Your task to perform on an android device: delete a single message in the gmail app Image 0: 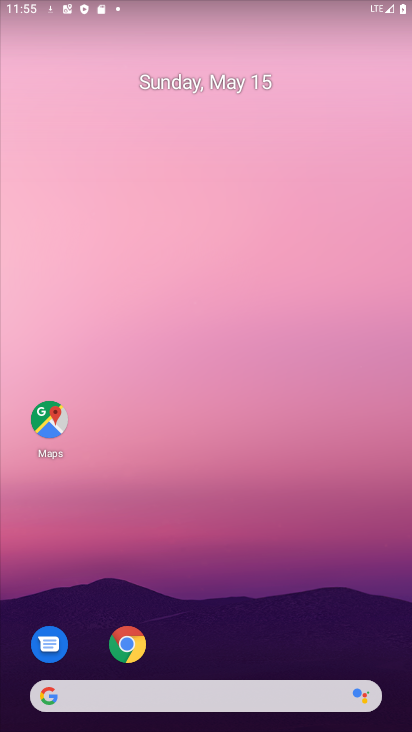
Step 0: drag from (196, 711) to (368, 250)
Your task to perform on an android device: delete a single message in the gmail app Image 1: 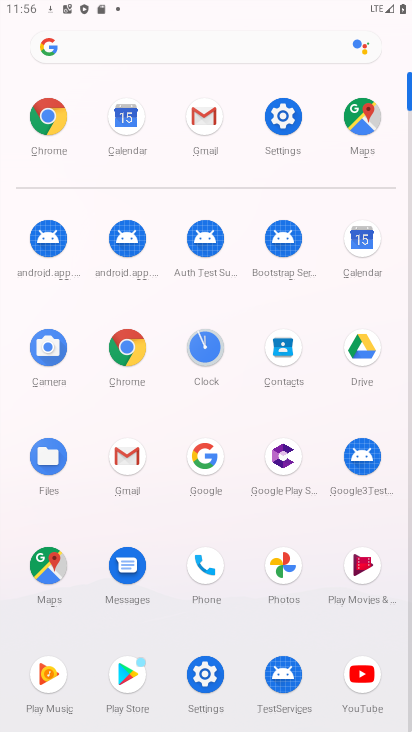
Step 1: click (196, 131)
Your task to perform on an android device: delete a single message in the gmail app Image 2: 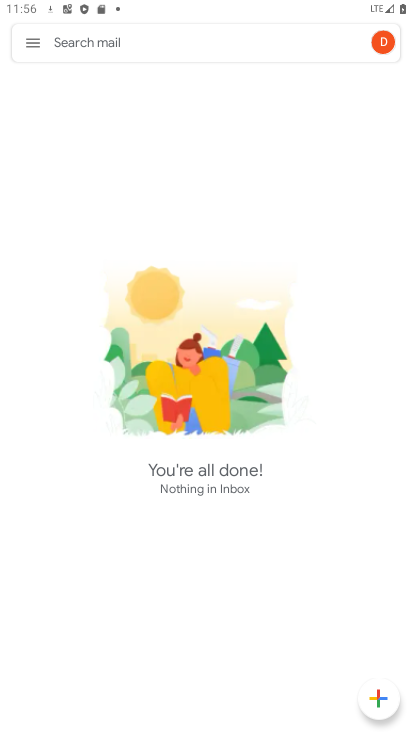
Step 2: task complete